Your task to perform on an android device: set the stopwatch Image 0: 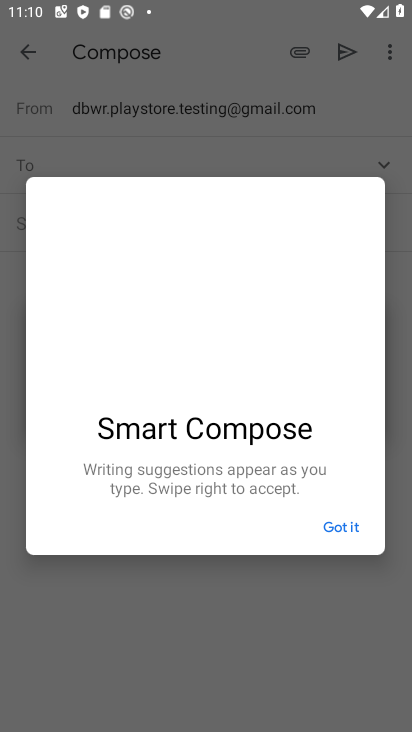
Step 0: press home button
Your task to perform on an android device: set the stopwatch Image 1: 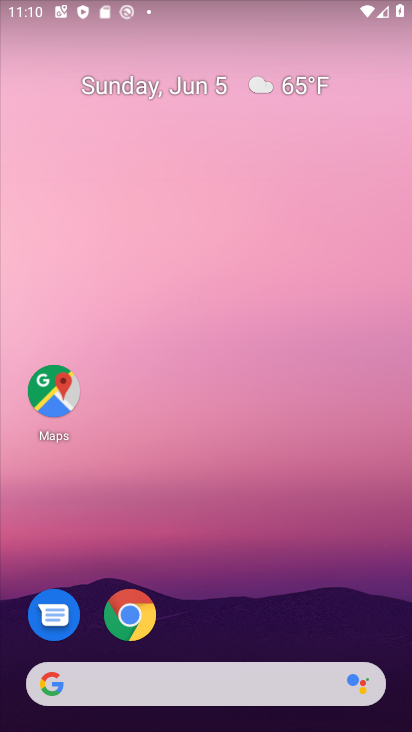
Step 1: drag from (118, 719) to (190, 1)
Your task to perform on an android device: set the stopwatch Image 2: 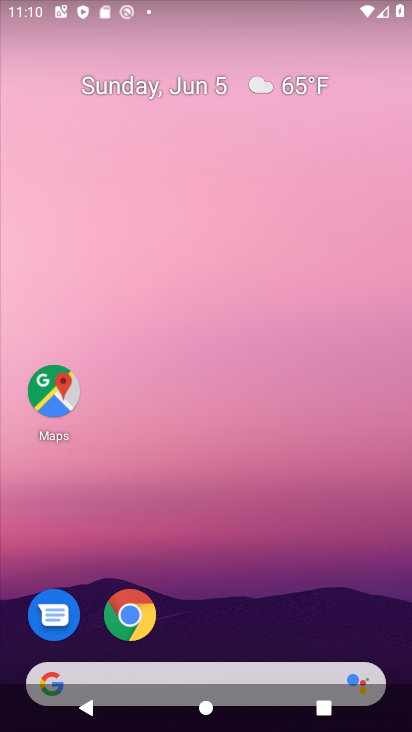
Step 2: drag from (146, 724) to (156, 46)
Your task to perform on an android device: set the stopwatch Image 3: 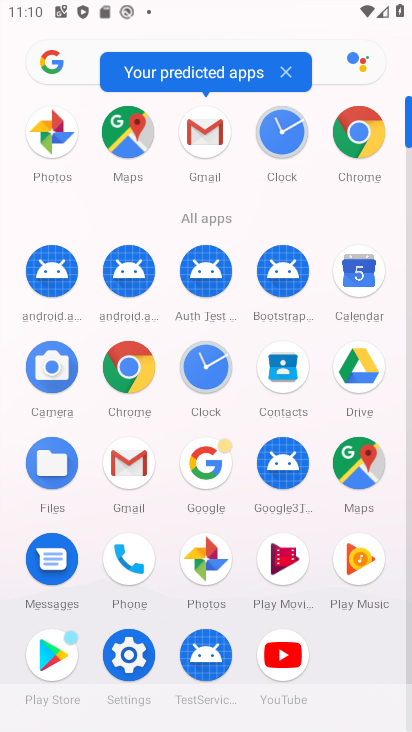
Step 3: click (271, 149)
Your task to perform on an android device: set the stopwatch Image 4: 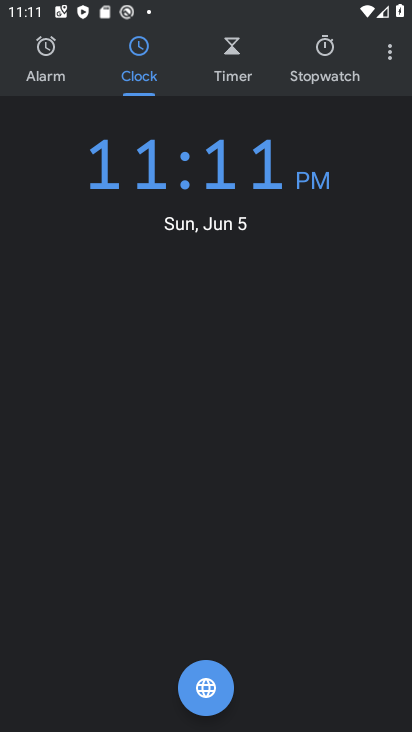
Step 4: click (327, 70)
Your task to perform on an android device: set the stopwatch Image 5: 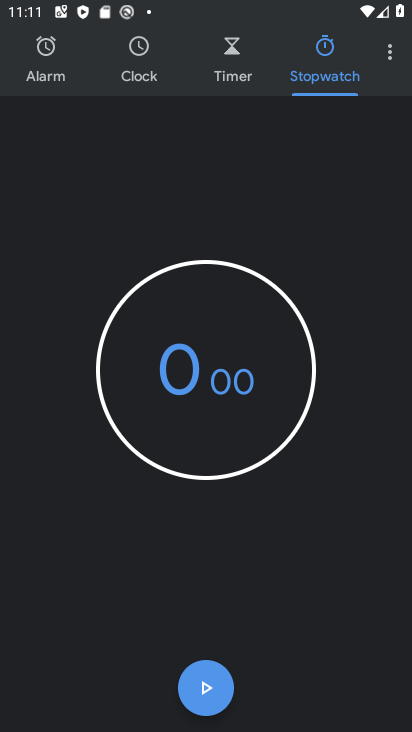
Step 5: click (193, 680)
Your task to perform on an android device: set the stopwatch Image 6: 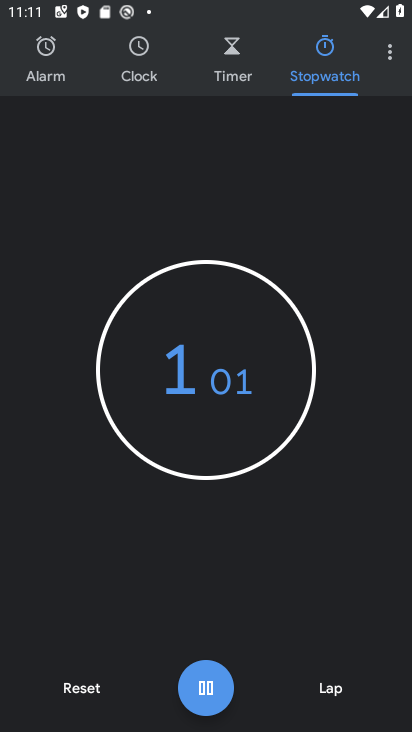
Step 6: click (190, 678)
Your task to perform on an android device: set the stopwatch Image 7: 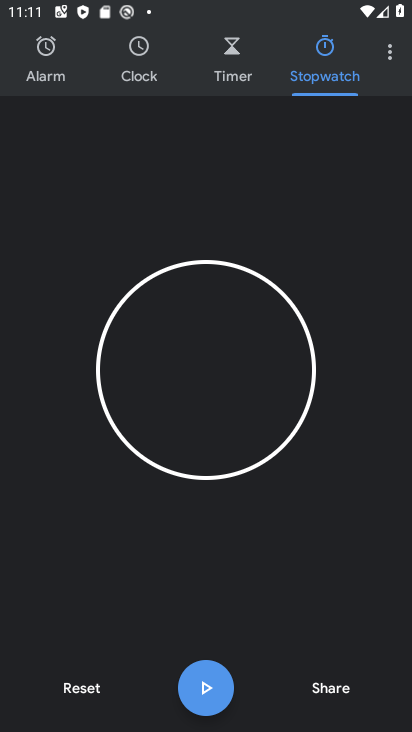
Step 7: task complete